Your task to perform on an android device: Search for seafood restaurants on Google Maps Image 0: 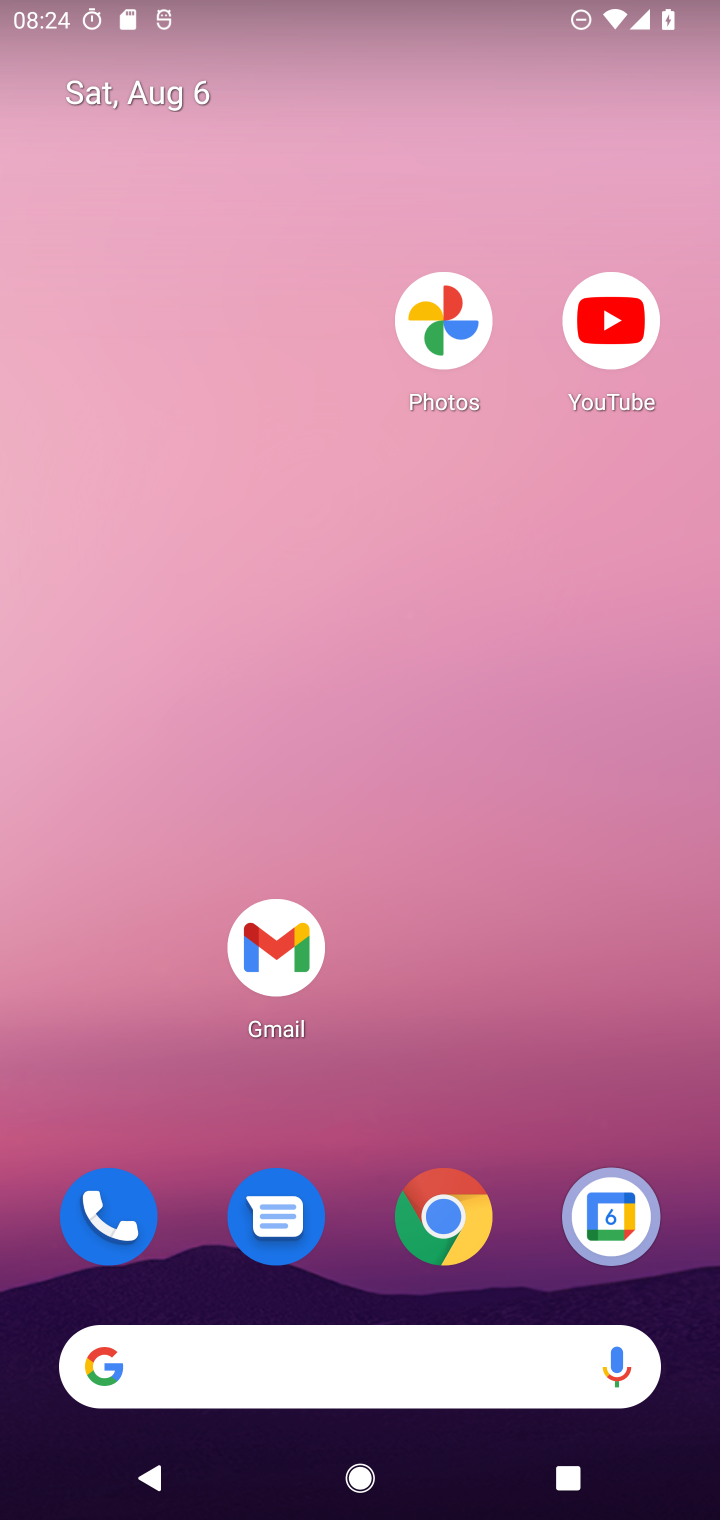
Step 0: click (682, 927)
Your task to perform on an android device: Search for seafood restaurants on Google Maps Image 1: 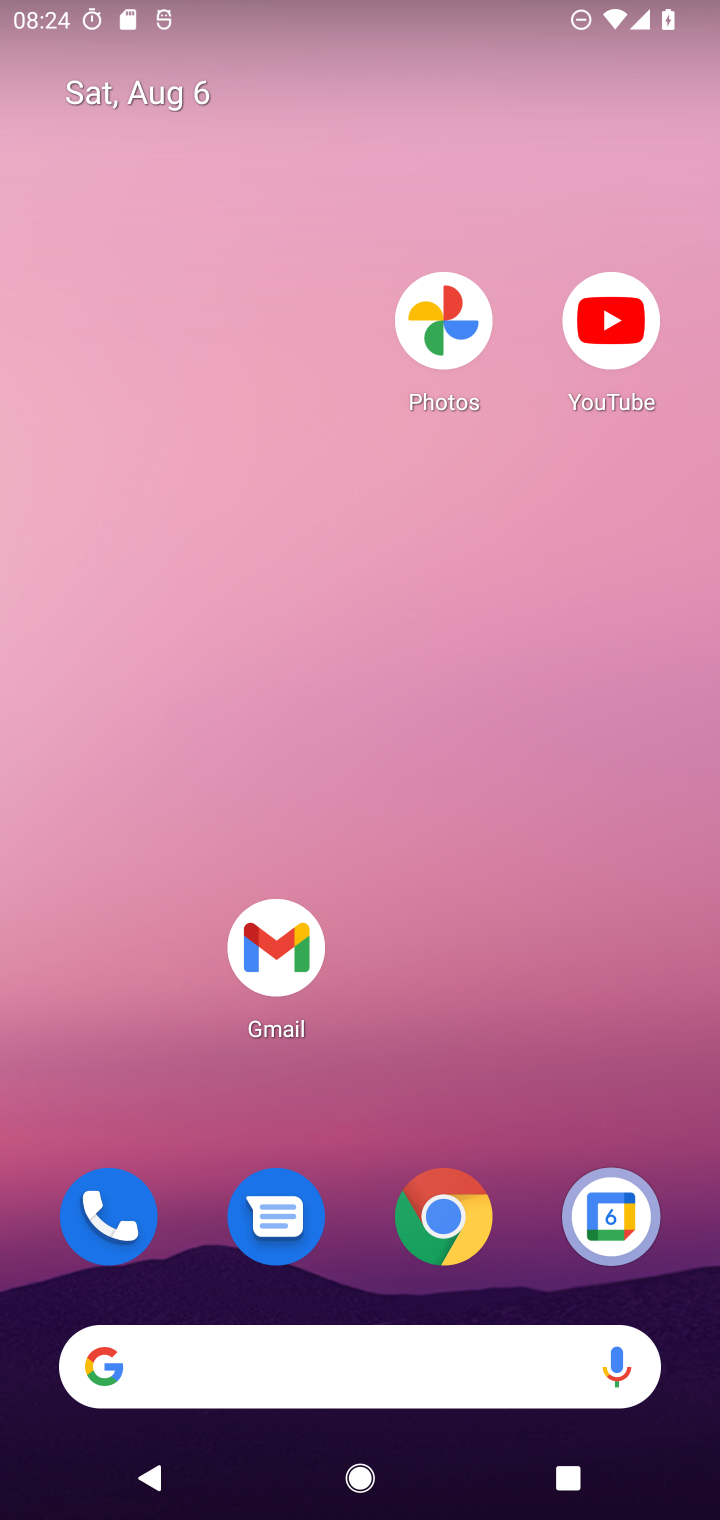
Step 1: drag from (526, 938) to (417, 127)
Your task to perform on an android device: Search for seafood restaurants on Google Maps Image 2: 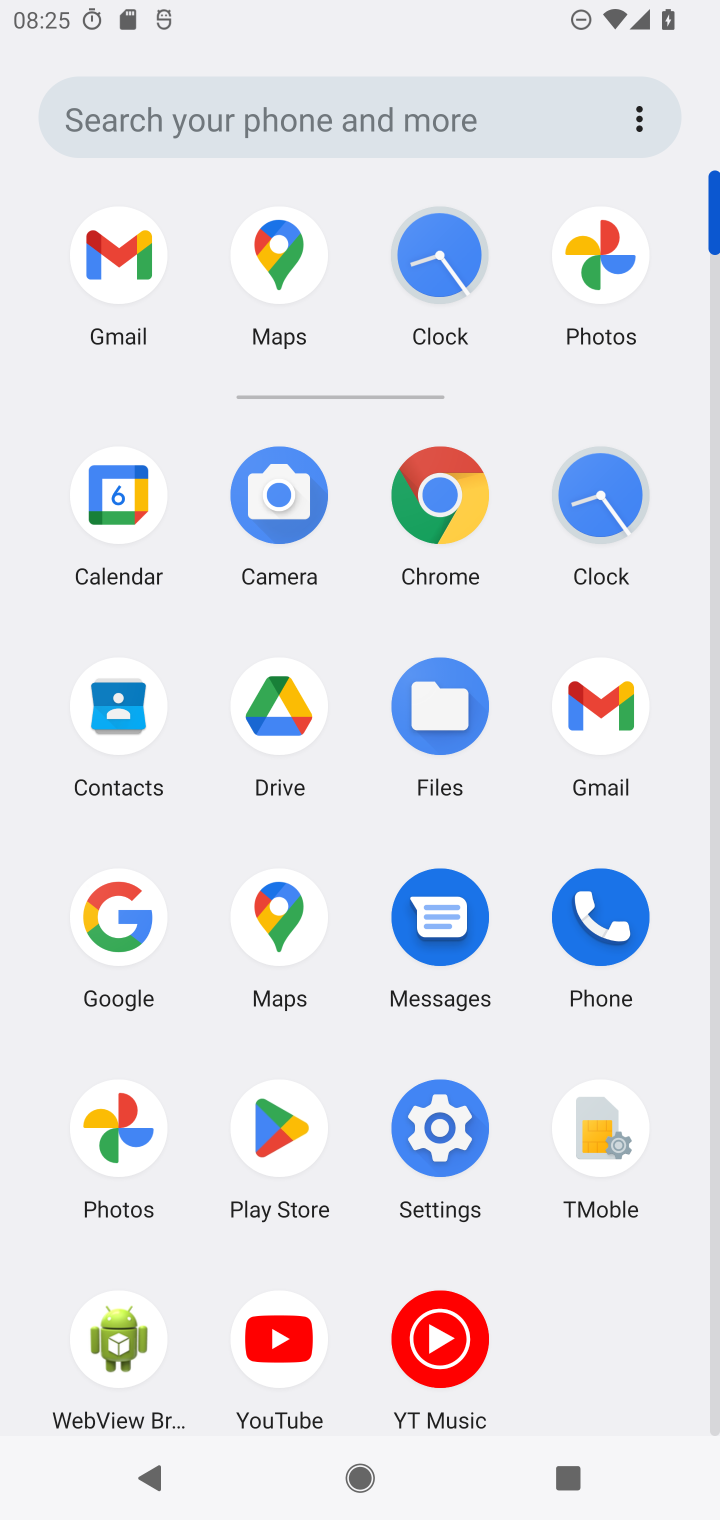
Step 2: click (282, 916)
Your task to perform on an android device: Search for seafood restaurants on Google Maps Image 3: 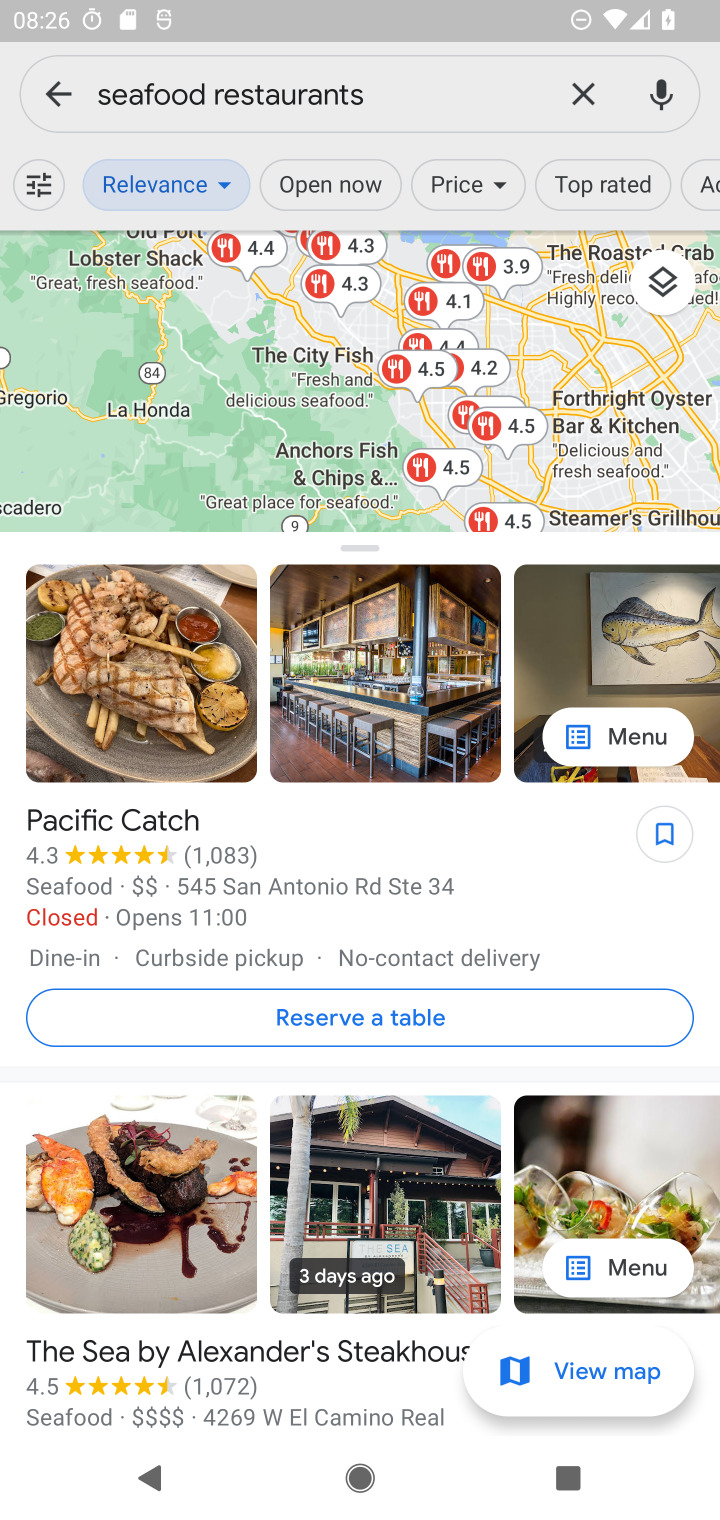
Step 3: task complete